Your task to perform on an android device: What is the news today? Image 0: 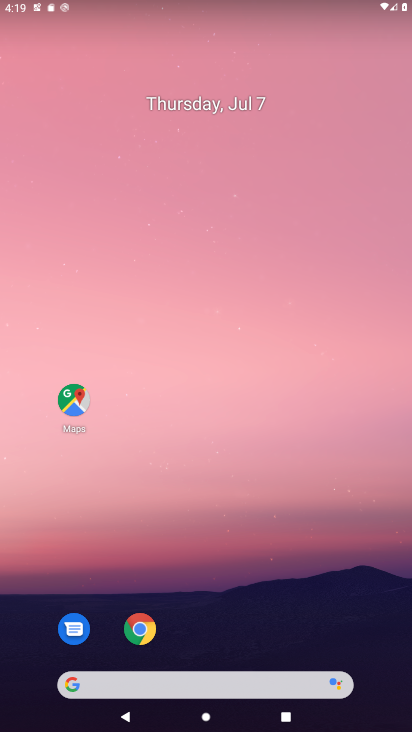
Step 0: drag from (213, 630) to (271, 77)
Your task to perform on an android device: What is the news today? Image 1: 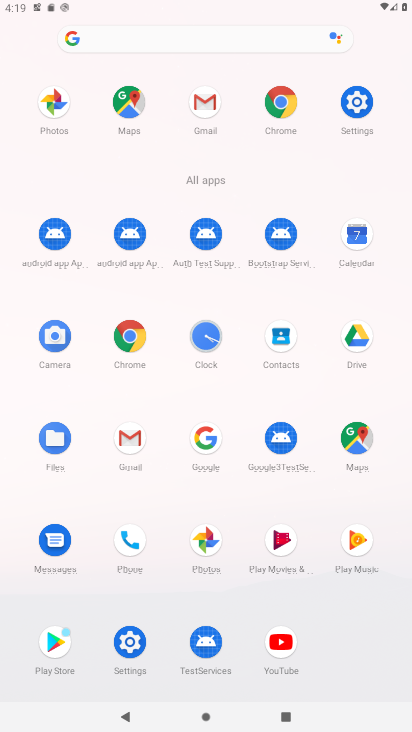
Step 1: click (120, 347)
Your task to perform on an android device: What is the news today? Image 2: 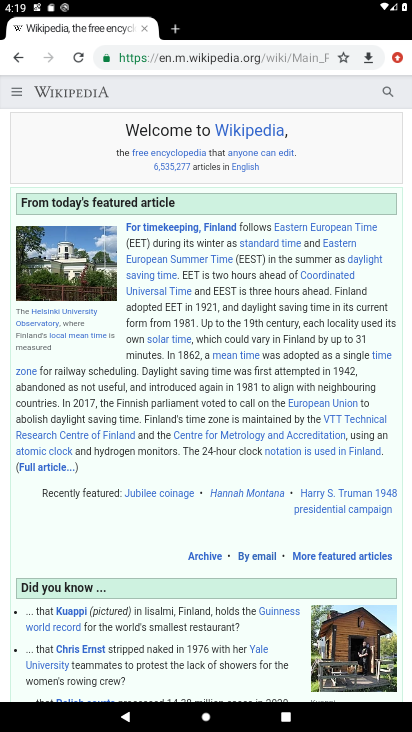
Step 2: task complete